Your task to perform on an android device: turn off smart reply in the gmail app Image 0: 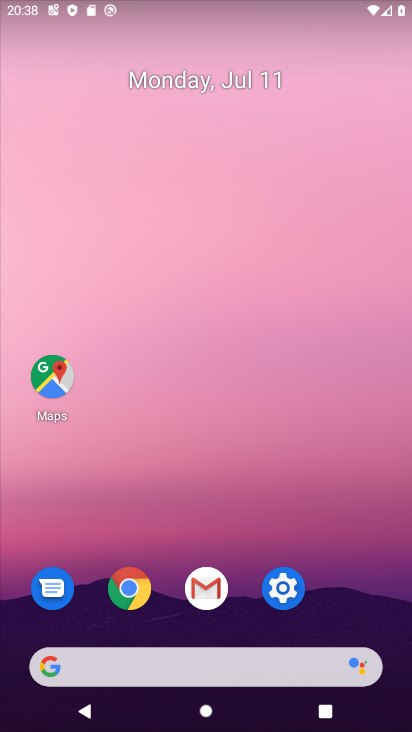
Step 0: drag from (258, 669) to (246, 142)
Your task to perform on an android device: turn off smart reply in the gmail app Image 1: 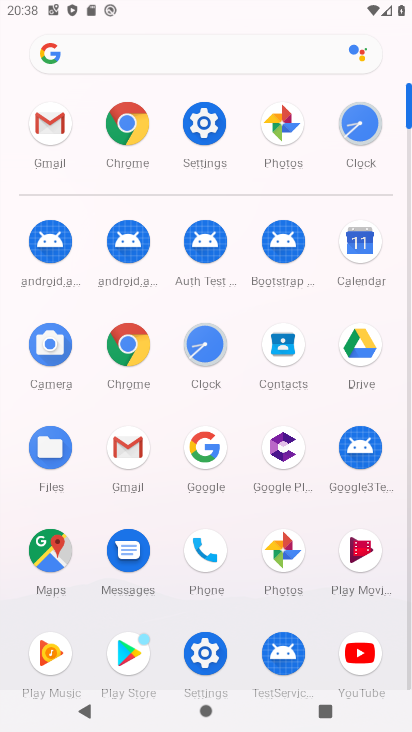
Step 1: click (125, 452)
Your task to perform on an android device: turn off smart reply in the gmail app Image 2: 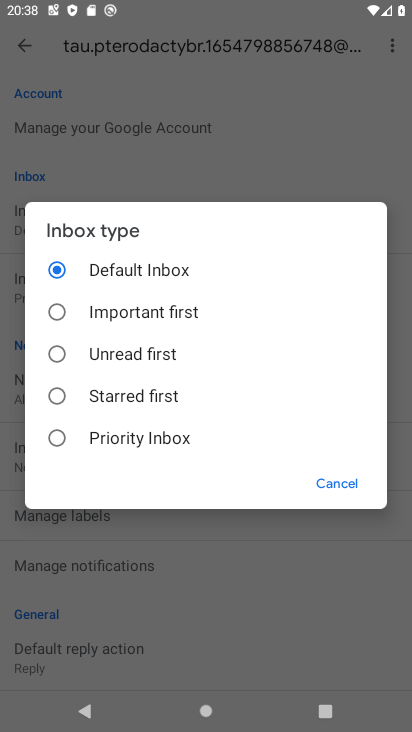
Step 2: click (224, 157)
Your task to perform on an android device: turn off smart reply in the gmail app Image 3: 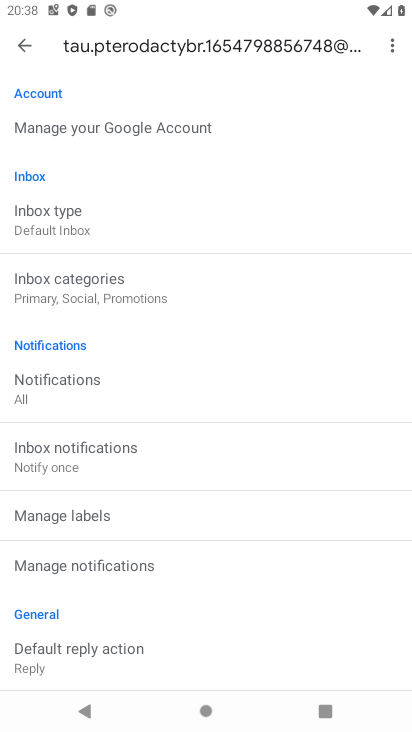
Step 3: drag from (181, 587) to (210, 185)
Your task to perform on an android device: turn off smart reply in the gmail app Image 4: 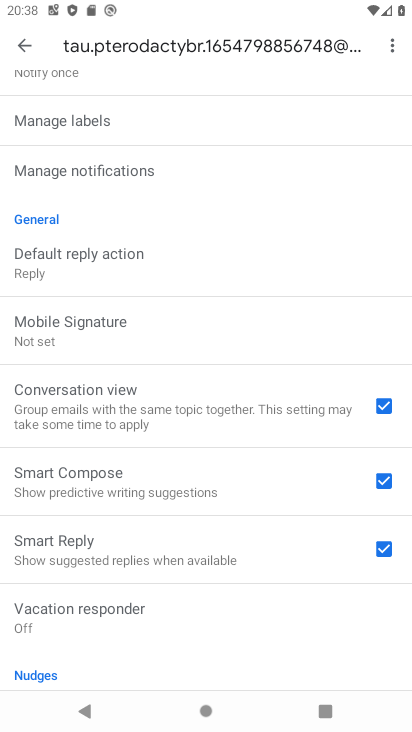
Step 4: drag from (230, 492) to (275, 331)
Your task to perform on an android device: turn off smart reply in the gmail app Image 5: 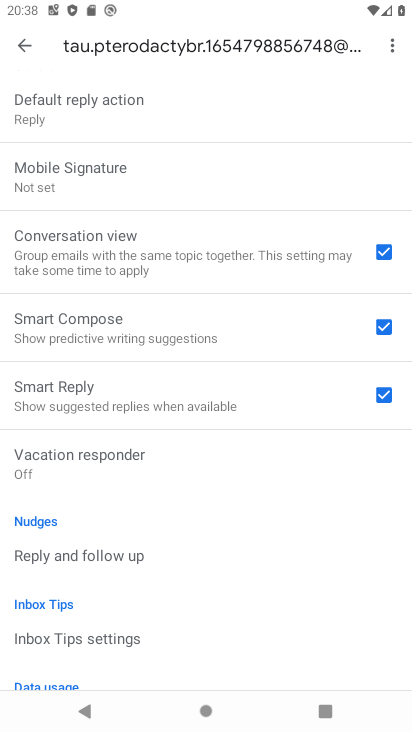
Step 5: click (383, 397)
Your task to perform on an android device: turn off smart reply in the gmail app Image 6: 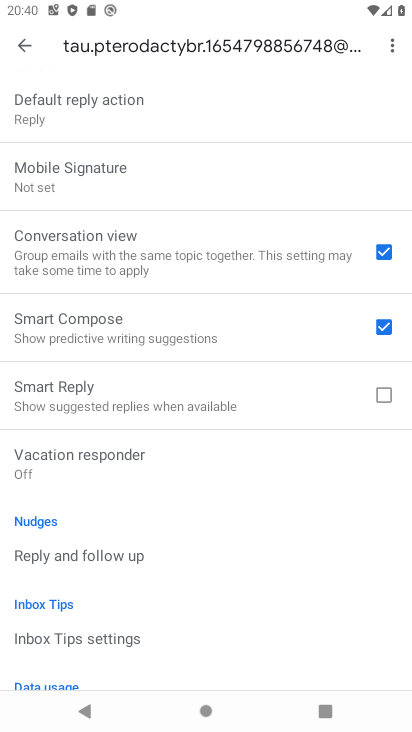
Step 6: task complete